Your task to perform on an android device: all mails in gmail Image 0: 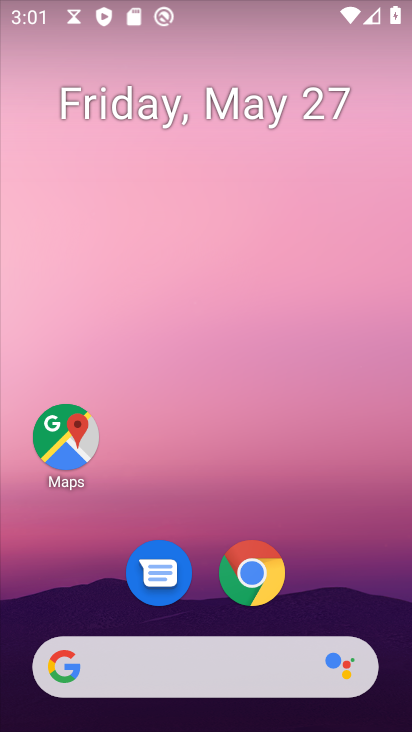
Step 0: drag from (318, 592) to (303, 10)
Your task to perform on an android device: all mails in gmail Image 1: 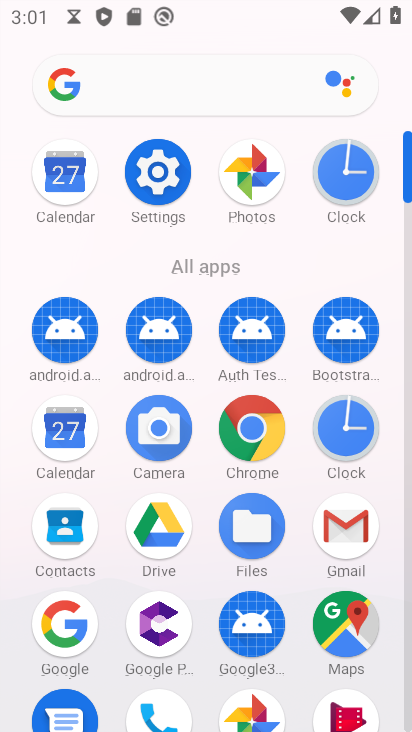
Step 1: click (341, 528)
Your task to perform on an android device: all mails in gmail Image 2: 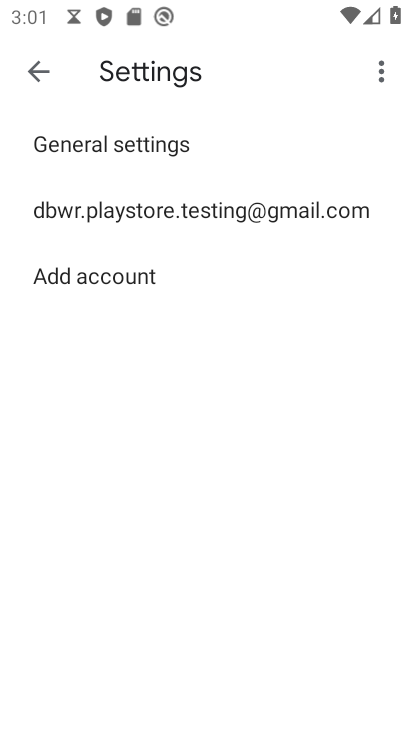
Step 2: click (15, 69)
Your task to perform on an android device: all mails in gmail Image 3: 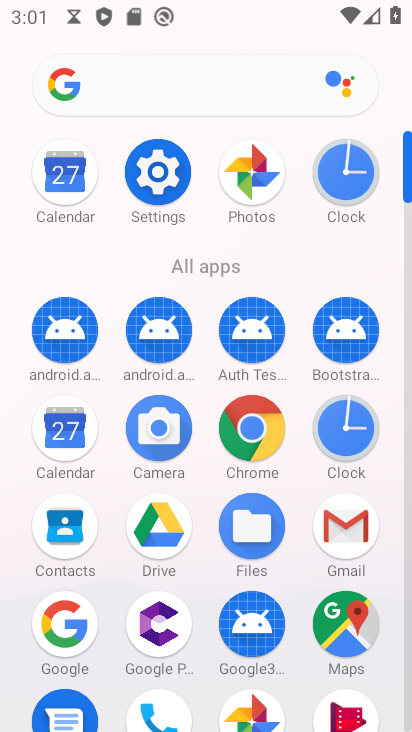
Step 3: click (338, 528)
Your task to perform on an android device: all mails in gmail Image 4: 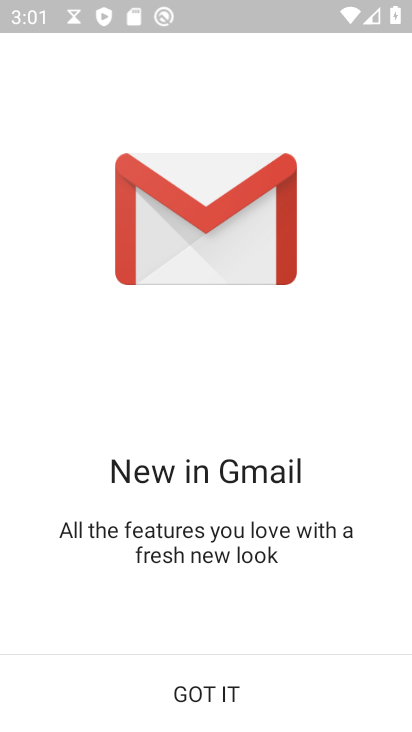
Step 4: click (257, 710)
Your task to perform on an android device: all mails in gmail Image 5: 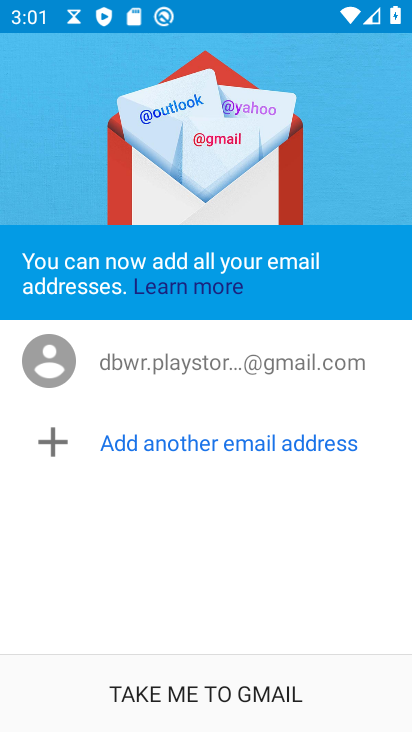
Step 5: click (243, 705)
Your task to perform on an android device: all mails in gmail Image 6: 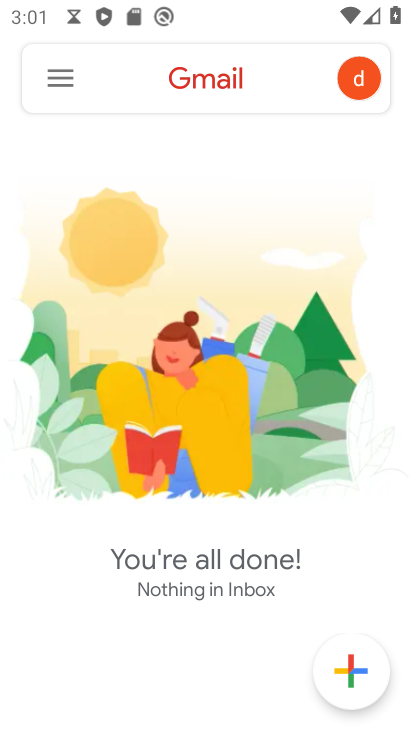
Step 6: click (55, 76)
Your task to perform on an android device: all mails in gmail Image 7: 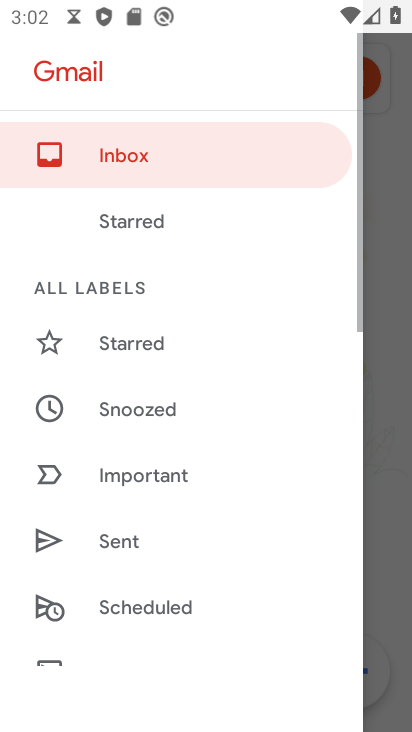
Step 7: drag from (84, 619) to (86, 225)
Your task to perform on an android device: all mails in gmail Image 8: 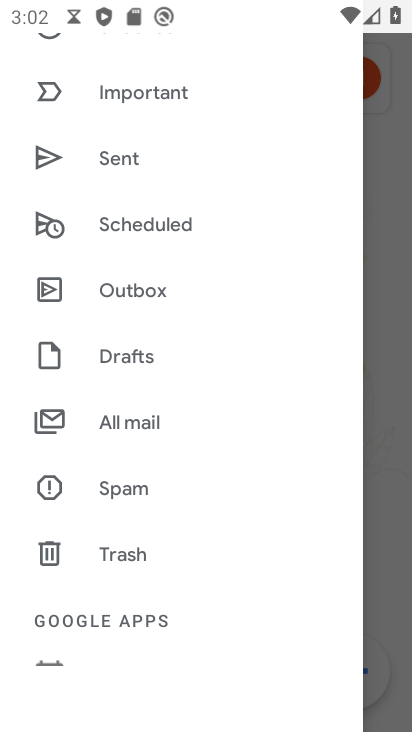
Step 8: click (151, 430)
Your task to perform on an android device: all mails in gmail Image 9: 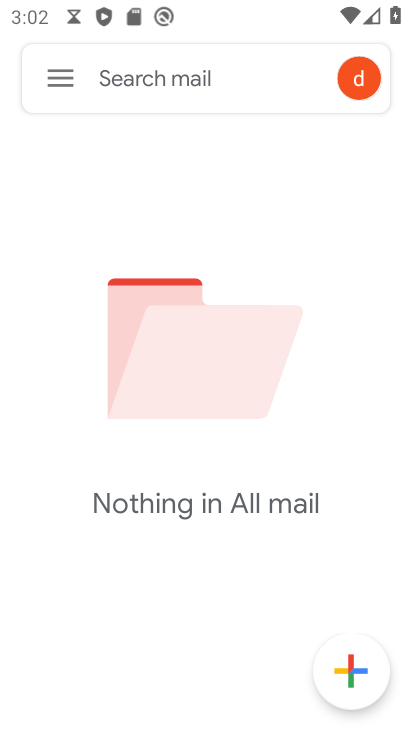
Step 9: task complete